Your task to perform on an android device: turn off location Image 0: 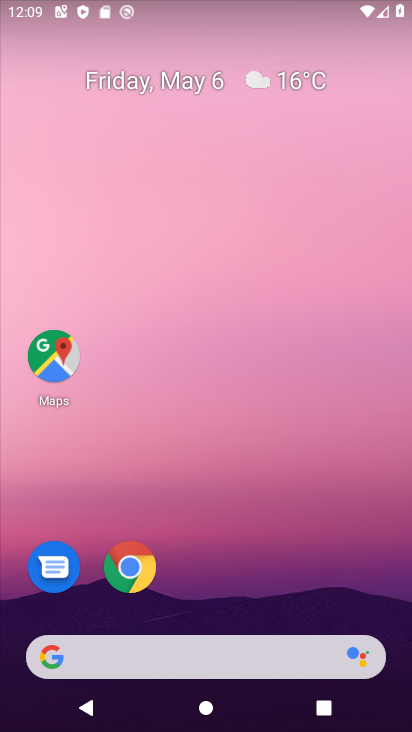
Step 0: drag from (347, 542) to (347, 29)
Your task to perform on an android device: turn off location Image 1: 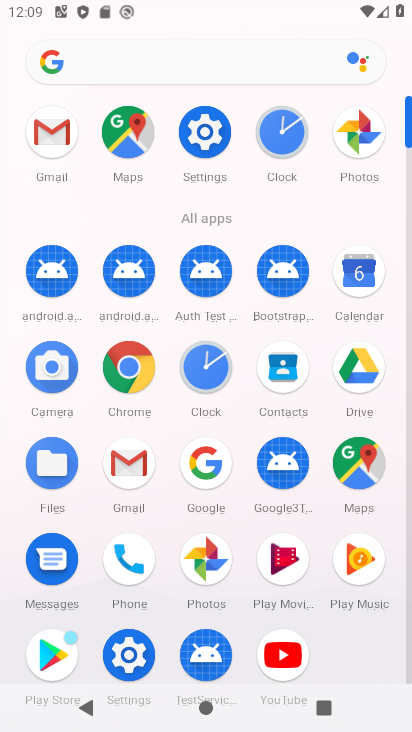
Step 1: click (211, 168)
Your task to perform on an android device: turn off location Image 2: 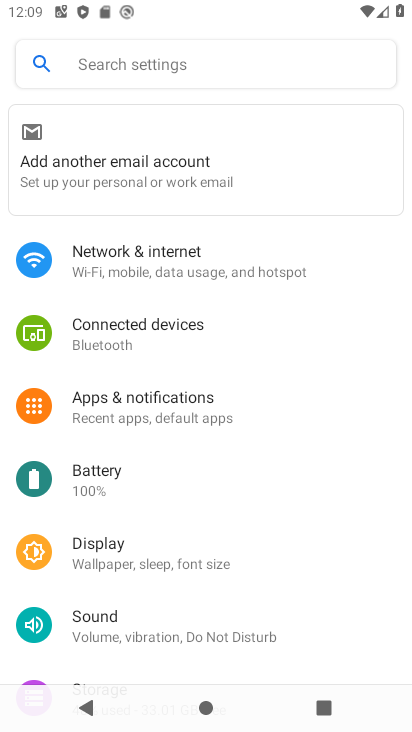
Step 2: drag from (152, 544) to (166, 150)
Your task to perform on an android device: turn off location Image 3: 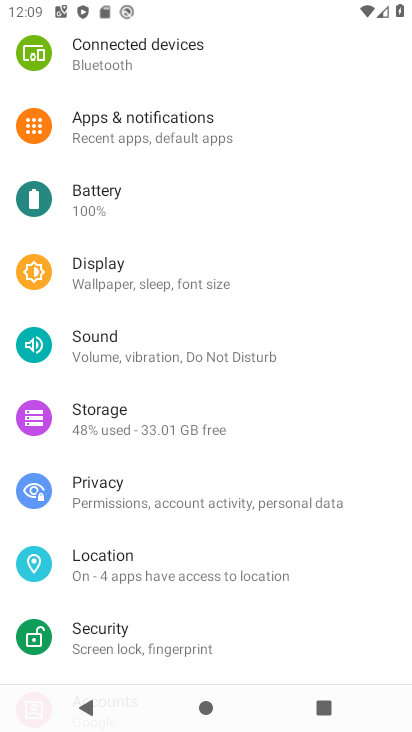
Step 3: click (157, 558)
Your task to perform on an android device: turn off location Image 4: 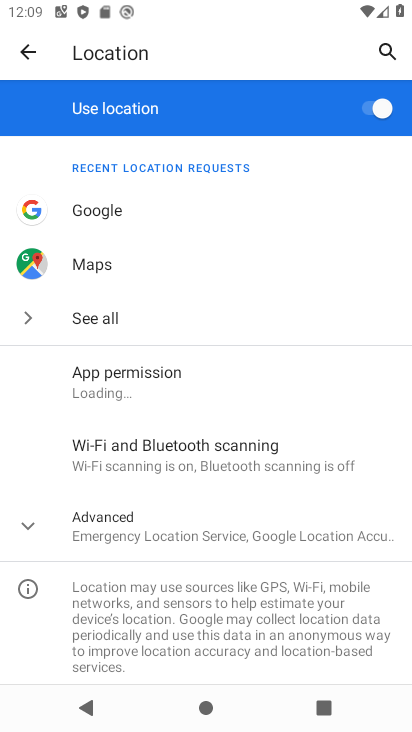
Step 4: click (355, 108)
Your task to perform on an android device: turn off location Image 5: 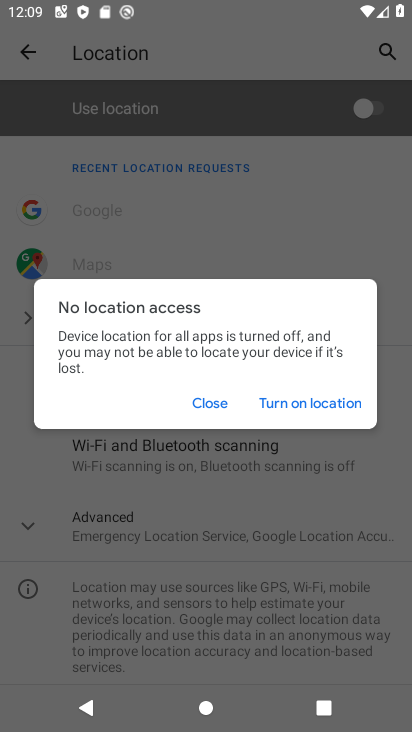
Step 5: task complete